Your task to perform on an android device: Open Android settings Image 0: 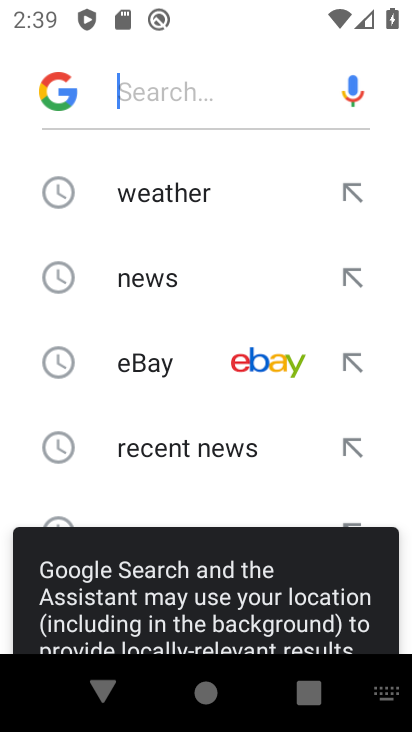
Step 0: press home button
Your task to perform on an android device: Open Android settings Image 1: 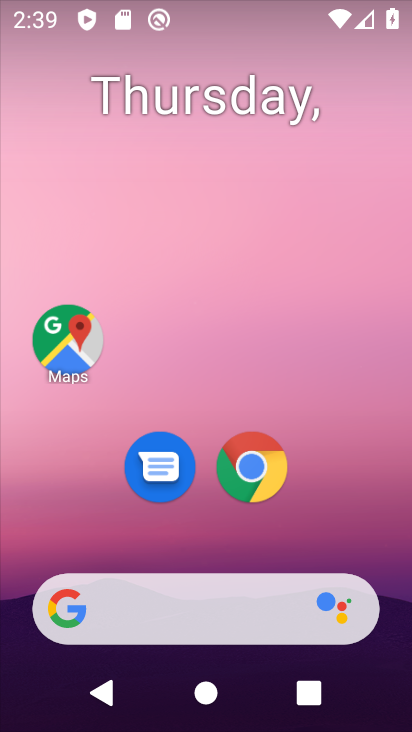
Step 1: drag from (182, 629) to (151, 0)
Your task to perform on an android device: Open Android settings Image 2: 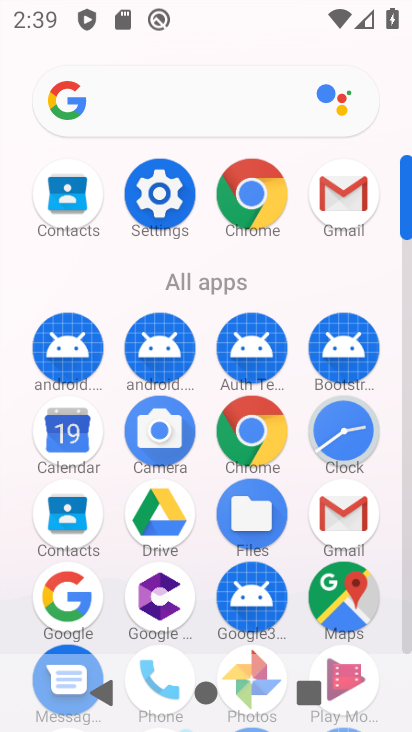
Step 2: click (160, 204)
Your task to perform on an android device: Open Android settings Image 3: 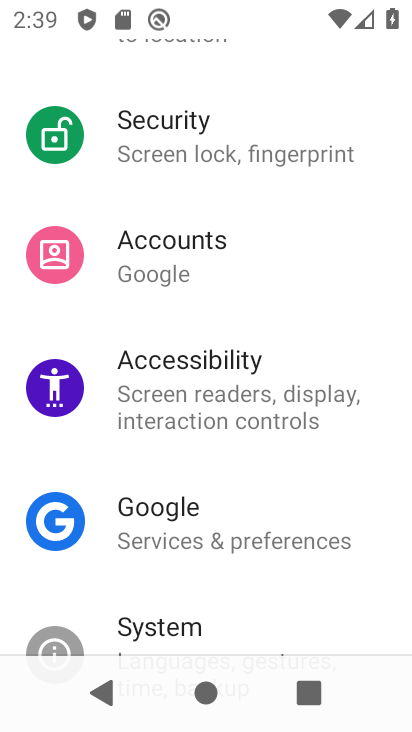
Step 3: task complete